Your task to perform on an android device: open the mobile data screen to see how much data has been used Image 0: 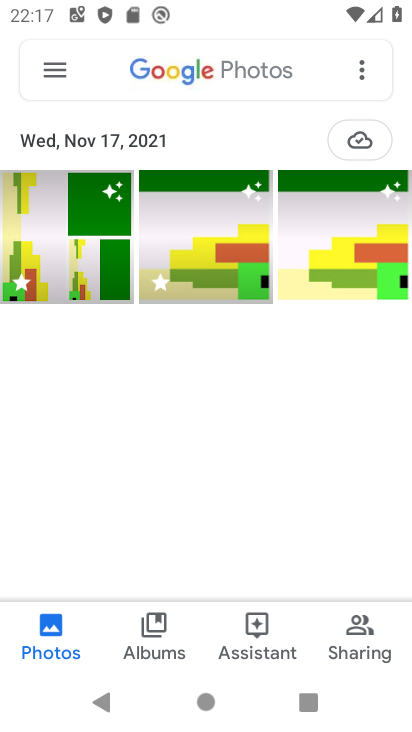
Step 0: press home button
Your task to perform on an android device: open the mobile data screen to see how much data has been used Image 1: 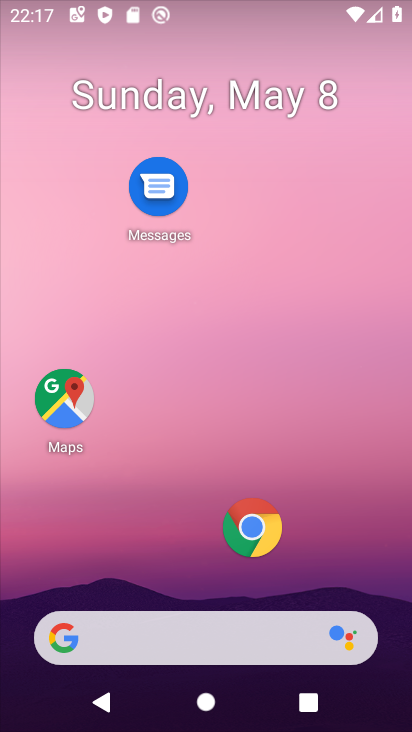
Step 1: drag from (178, 522) to (180, 99)
Your task to perform on an android device: open the mobile data screen to see how much data has been used Image 2: 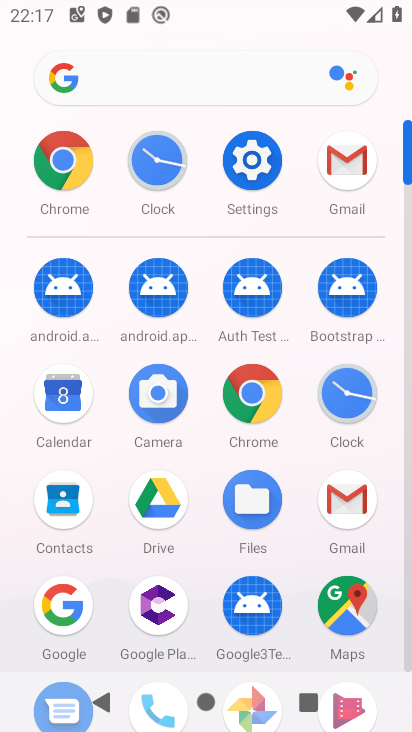
Step 2: click (250, 156)
Your task to perform on an android device: open the mobile data screen to see how much data has been used Image 3: 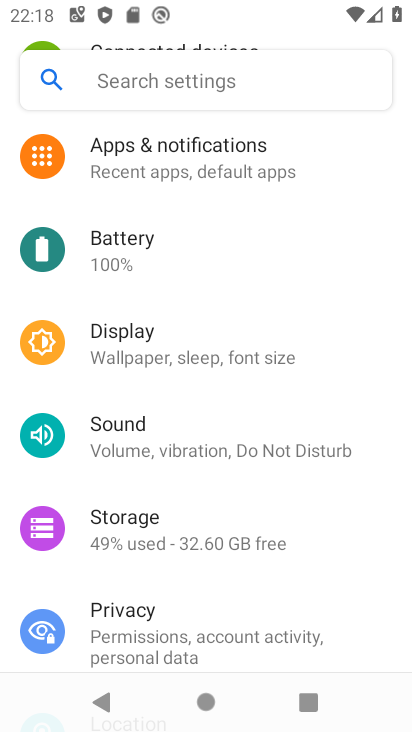
Step 3: drag from (174, 213) to (208, 570)
Your task to perform on an android device: open the mobile data screen to see how much data has been used Image 4: 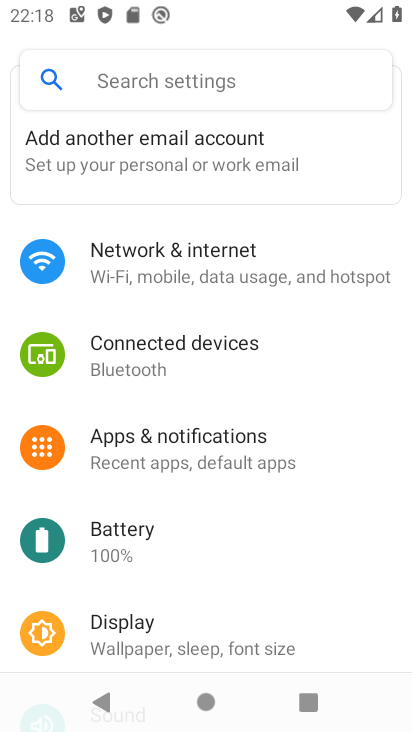
Step 4: click (161, 263)
Your task to perform on an android device: open the mobile data screen to see how much data has been used Image 5: 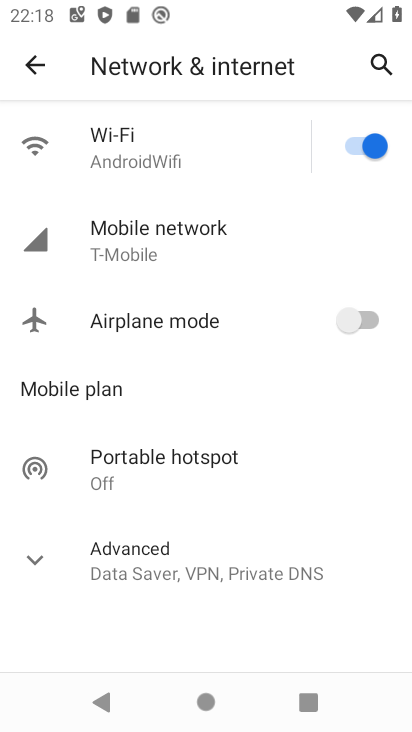
Step 5: click (175, 243)
Your task to perform on an android device: open the mobile data screen to see how much data has been used Image 6: 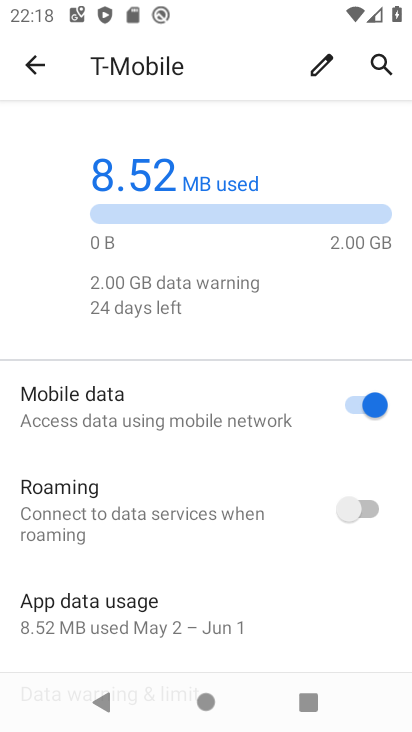
Step 6: task complete